Your task to perform on an android device: show emergency info Image 0: 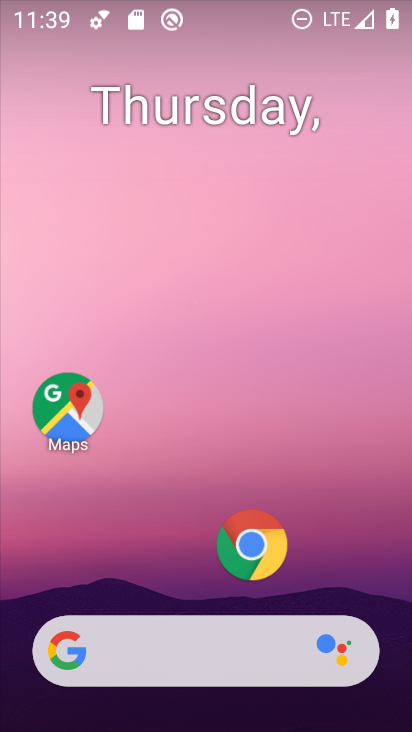
Step 0: drag from (211, 617) to (13, 487)
Your task to perform on an android device: show emergency info Image 1: 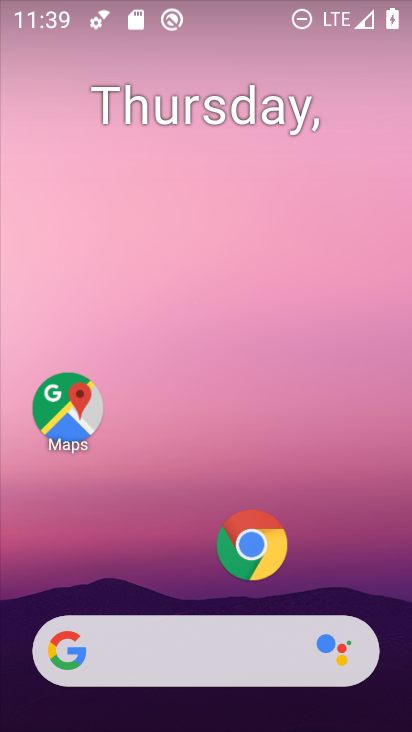
Step 1: drag from (215, 602) to (193, 39)
Your task to perform on an android device: show emergency info Image 2: 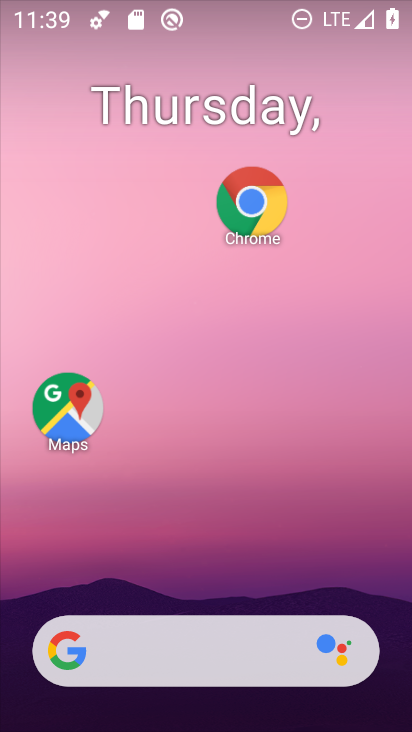
Step 2: drag from (199, 609) to (264, 39)
Your task to perform on an android device: show emergency info Image 3: 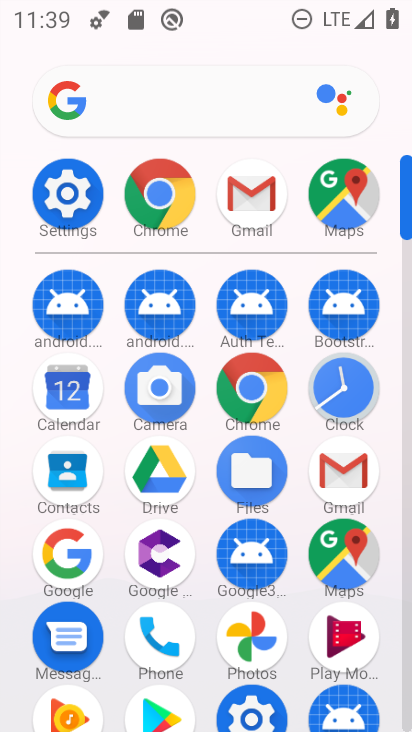
Step 3: click (68, 209)
Your task to perform on an android device: show emergency info Image 4: 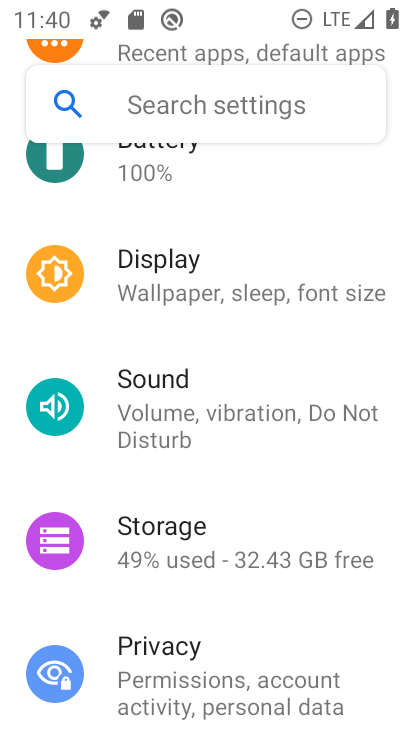
Step 4: drag from (254, 569) to (259, 33)
Your task to perform on an android device: show emergency info Image 5: 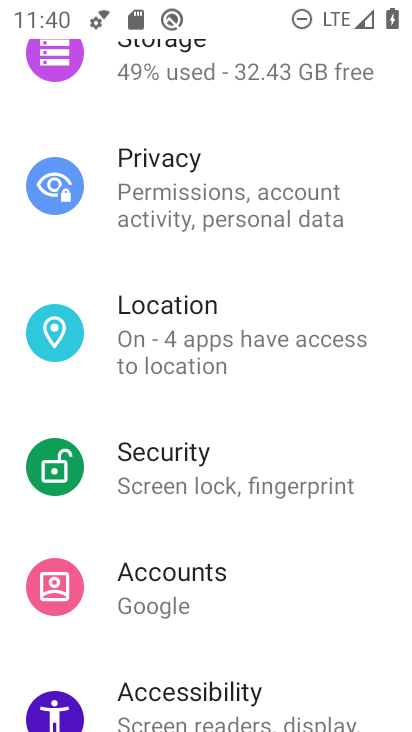
Step 5: drag from (204, 701) to (193, 3)
Your task to perform on an android device: show emergency info Image 6: 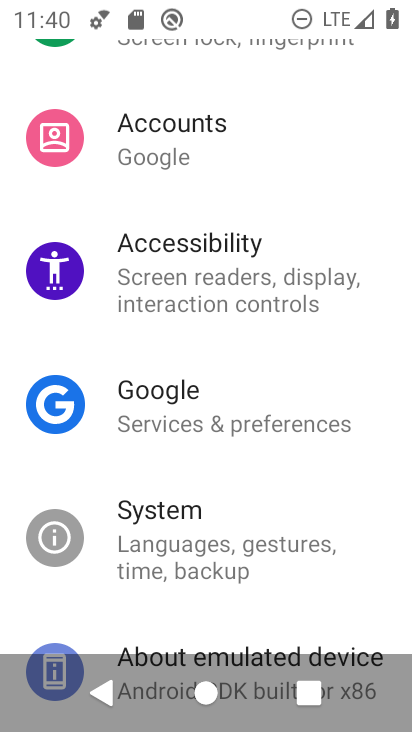
Step 6: click (202, 645)
Your task to perform on an android device: show emergency info Image 7: 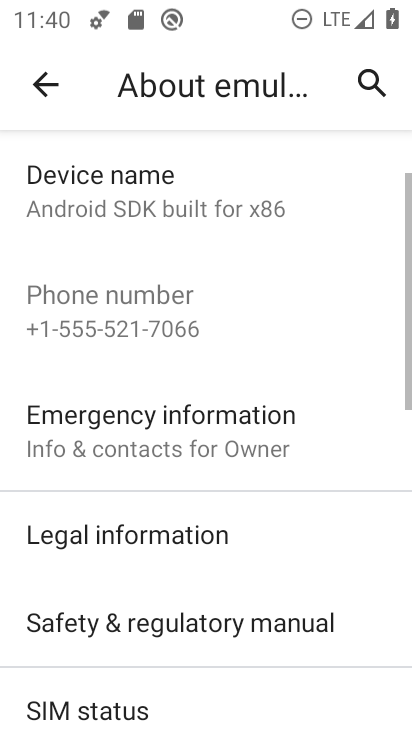
Step 7: drag from (216, 708) to (291, 22)
Your task to perform on an android device: show emergency info Image 8: 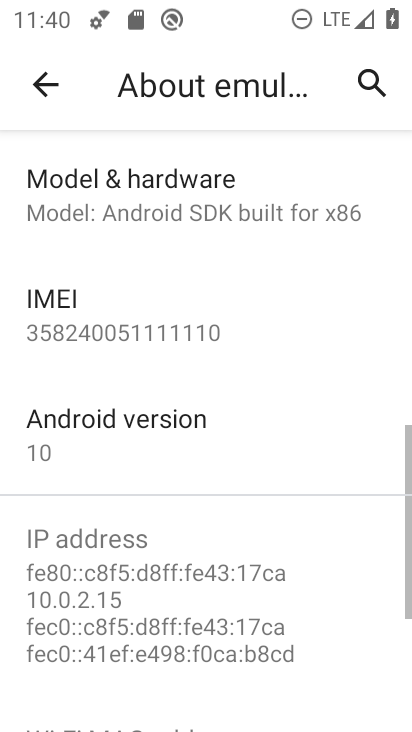
Step 8: drag from (199, 590) to (137, 3)
Your task to perform on an android device: show emergency info Image 9: 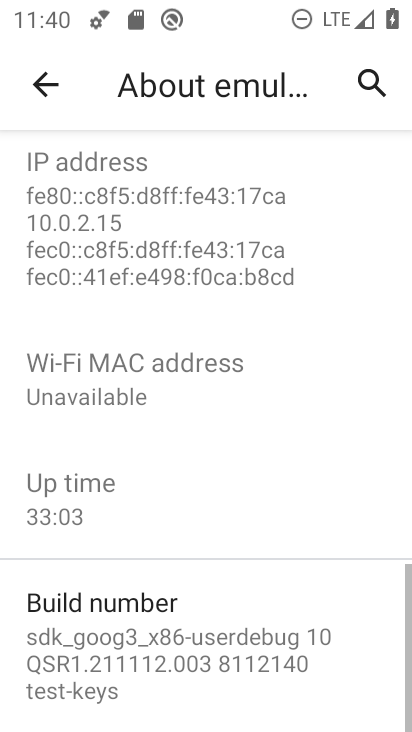
Step 9: drag from (108, 149) to (126, 726)
Your task to perform on an android device: show emergency info Image 10: 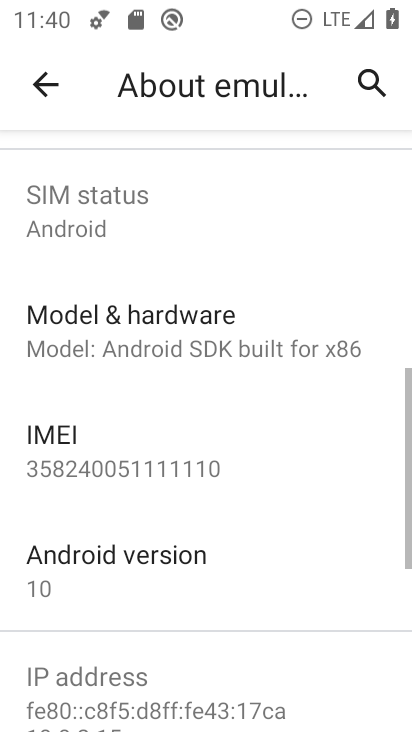
Step 10: drag from (38, 83) to (130, 654)
Your task to perform on an android device: show emergency info Image 11: 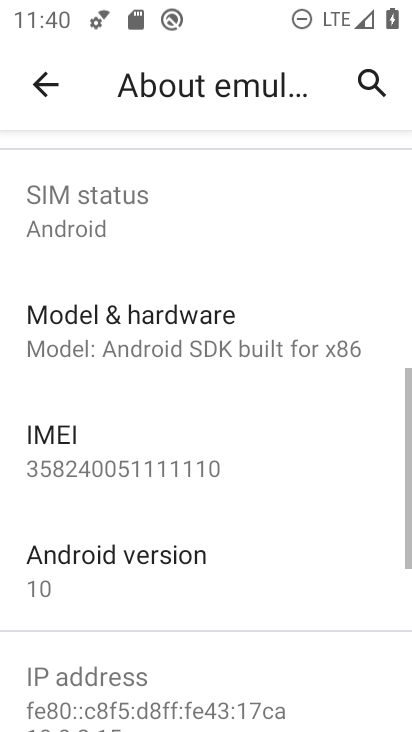
Step 11: drag from (130, 646) to (95, 49)
Your task to perform on an android device: show emergency info Image 12: 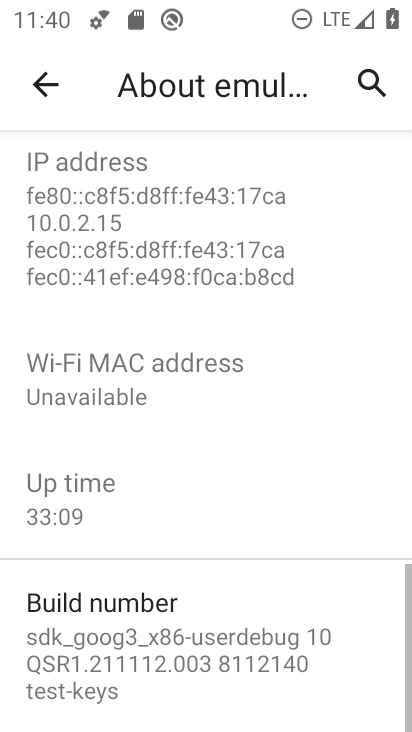
Step 12: drag from (235, 159) to (216, 720)
Your task to perform on an android device: show emergency info Image 13: 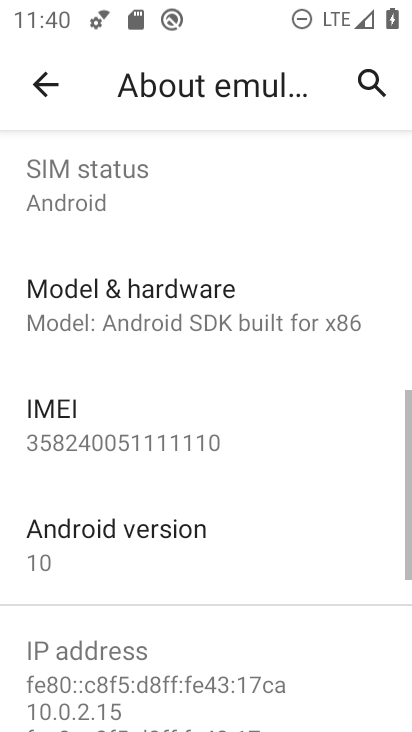
Step 13: drag from (178, 288) to (157, 688)
Your task to perform on an android device: show emergency info Image 14: 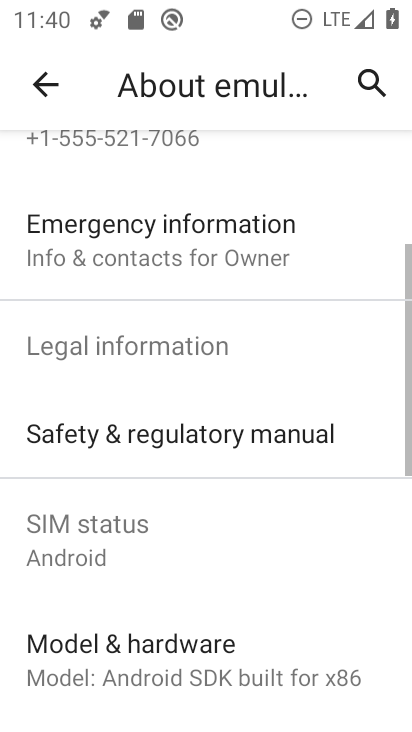
Step 14: click (128, 273)
Your task to perform on an android device: show emergency info Image 15: 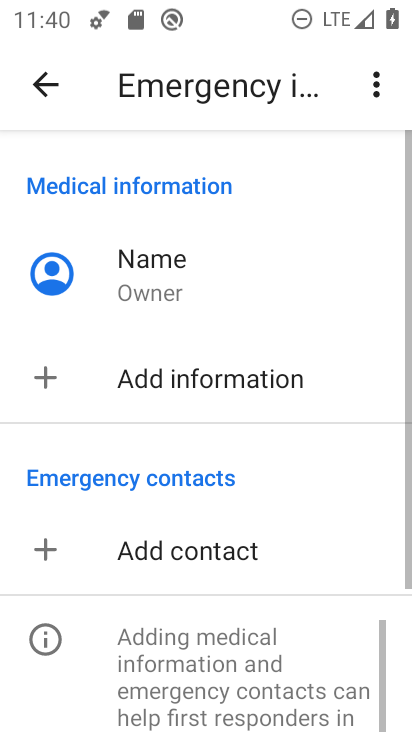
Step 15: task complete